Your task to perform on an android device: turn off wifi Image 0: 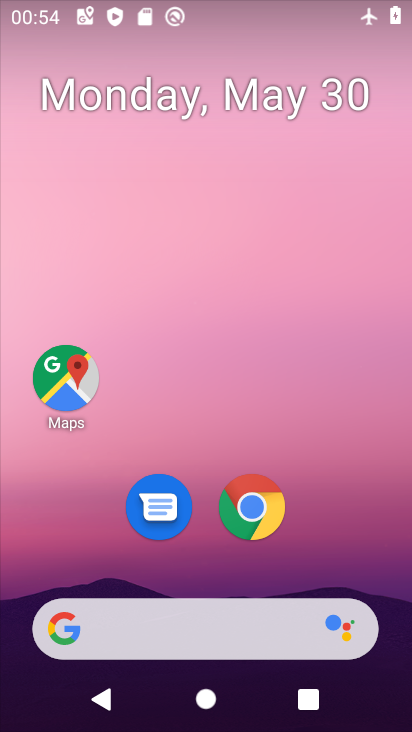
Step 0: drag from (282, 550) to (285, 149)
Your task to perform on an android device: turn off wifi Image 1: 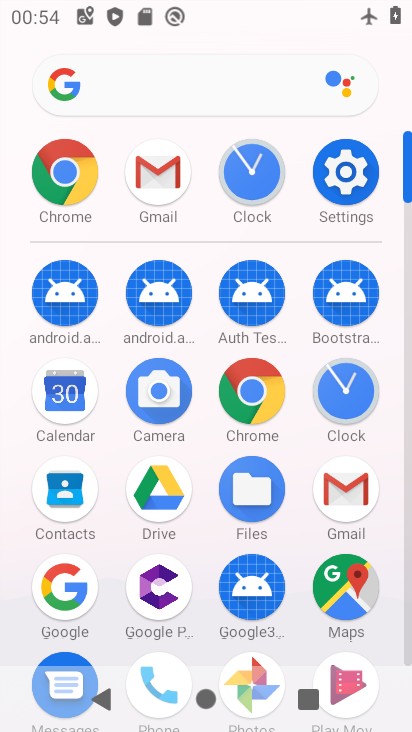
Step 1: click (338, 161)
Your task to perform on an android device: turn off wifi Image 2: 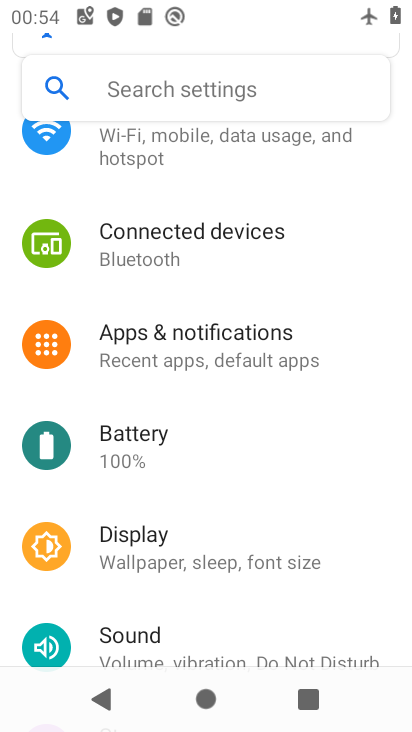
Step 2: drag from (217, 193) to (233, 345)
Your task to perform on an android device: turn off wifi Image 3: 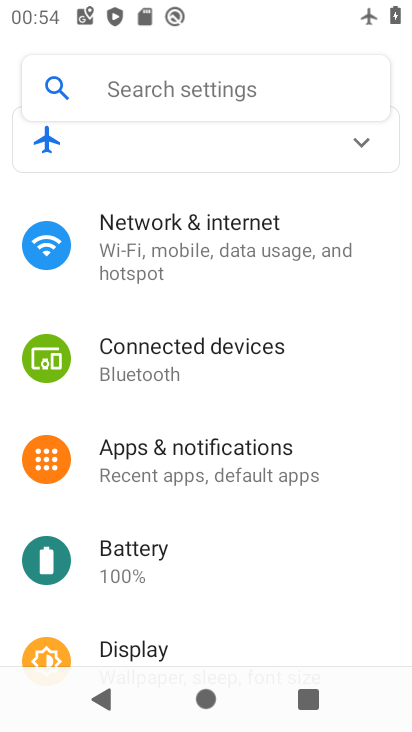
Step 3: click (211, 250)
Your task to perform on an android device: turn off wifi Image 4: 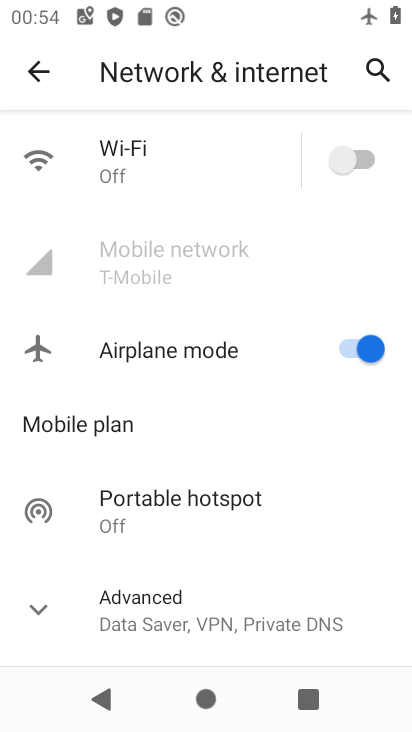
Step 4: task complete